Your task to perform on an android device: turn off notifications settings in the gmail app Image 0: 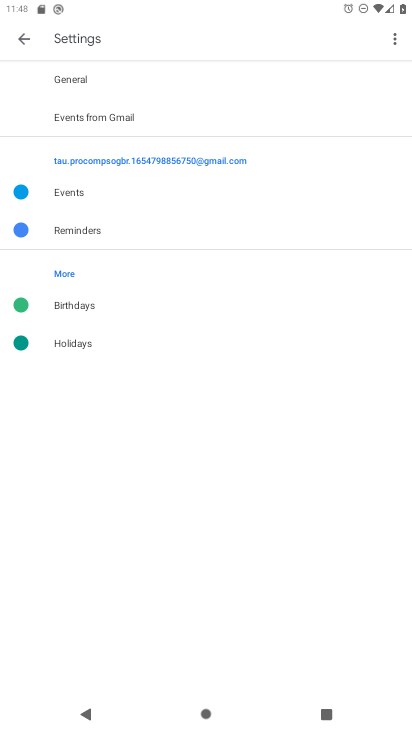
Step 0: press home button
Your task to perform on an android device: turn off notifications settings in the gmail app Image 1: 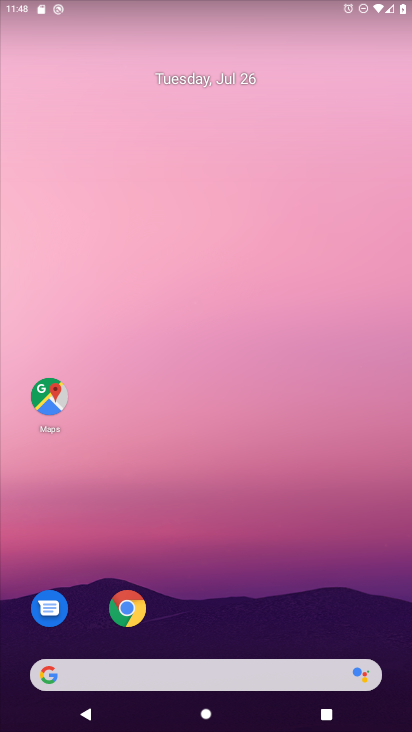
Step 1: drag from (264, 534) to (247, 41)
Your task to perform on an android device: turn off notifications settings in the gmail app Image 2: 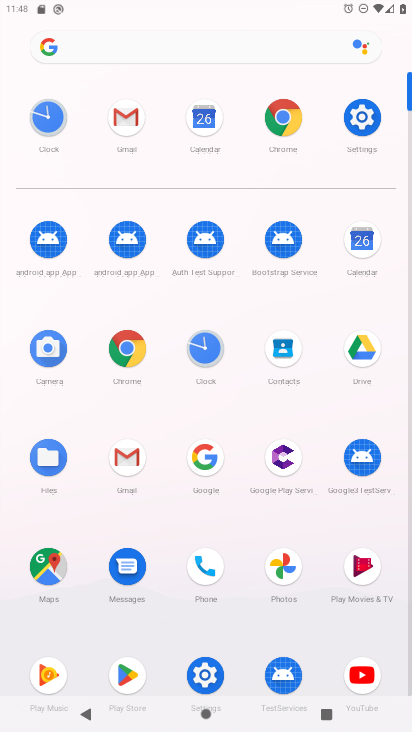
Step 2: click (128, 112)
Your task to perform on an android device: turn off notifications settings in the gmail app Image 3: 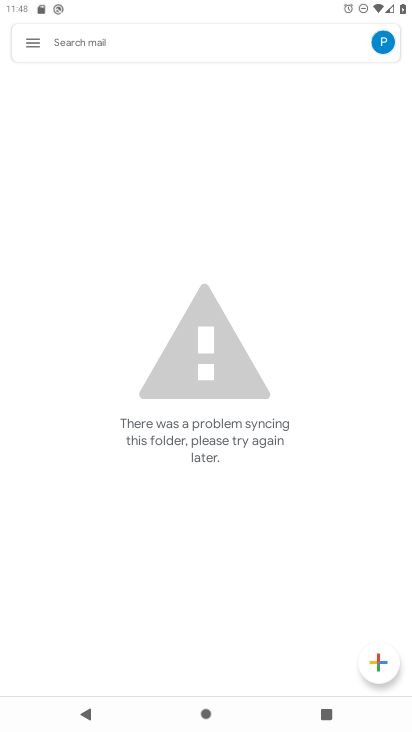
Step 3: click (24, 42)
Your task to perform on an android device: turn off notifications settings in the gmail app Image 4: 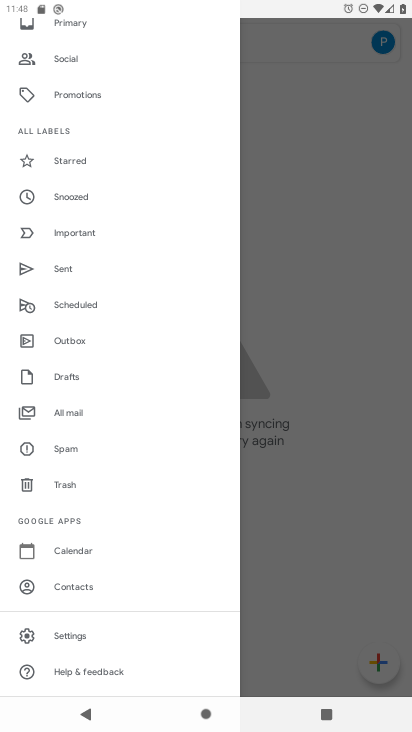
Step 4: drag from (101, 639) to (149, 236)
Your task to perform on an android device: turn off notifications settings in the gmail app Image 5: 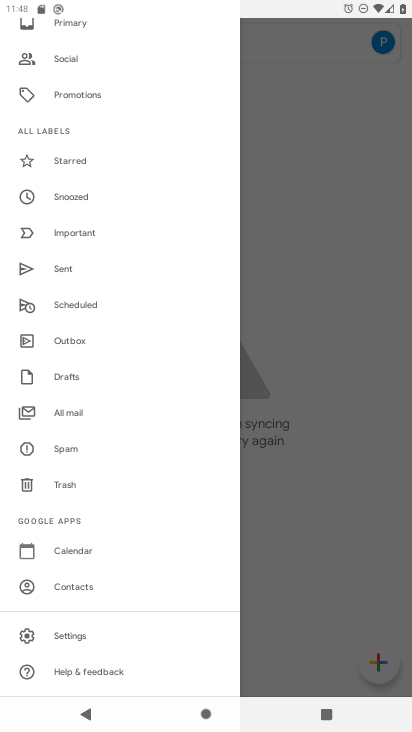
Step 5: click (83, 639)
Your task to perform on an android device: turn off notifications settings in the gmail app Image 6: 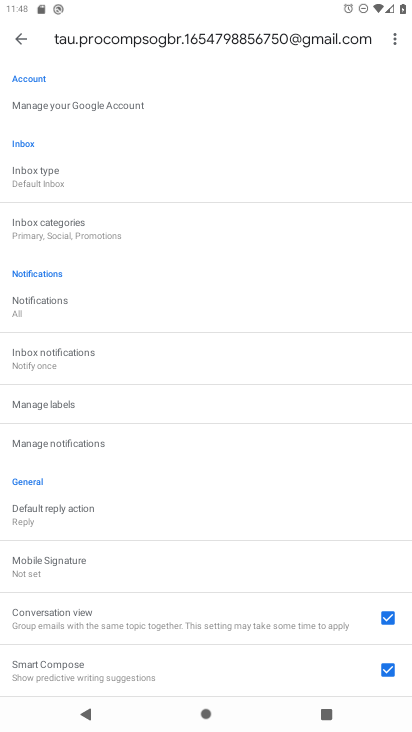
Step 6: click (36, 439)
Your task to perform on an android device: turn off notifications settings in the gmail app Image 7: 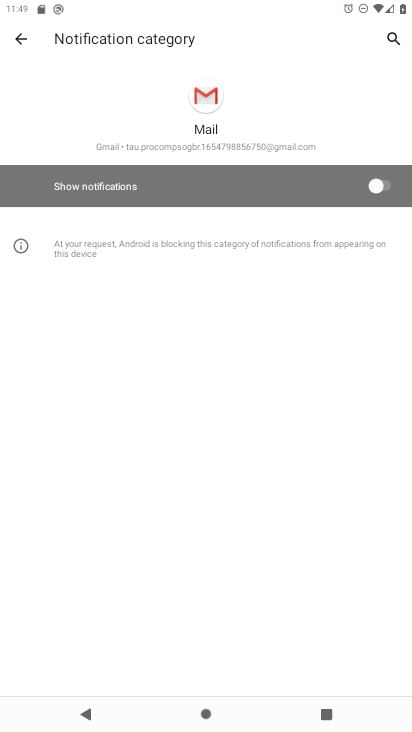
Step 7: task complete